Your task to perform on an android device: Go to ESPN.com Image 0: 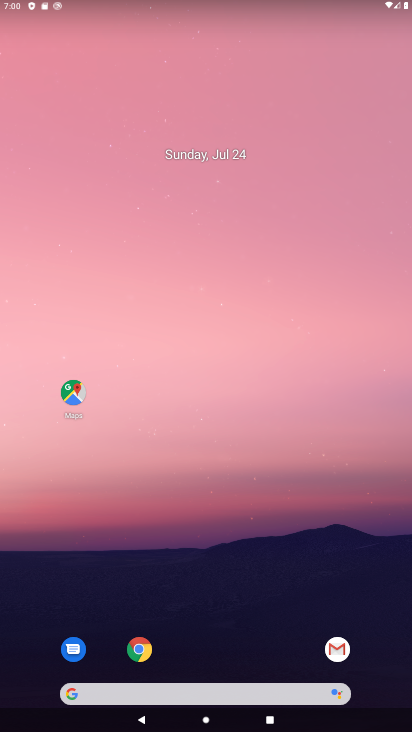
Step 0: click (129, 648)
Your task to perform on an android device: Go to ESPN.com Image 1: 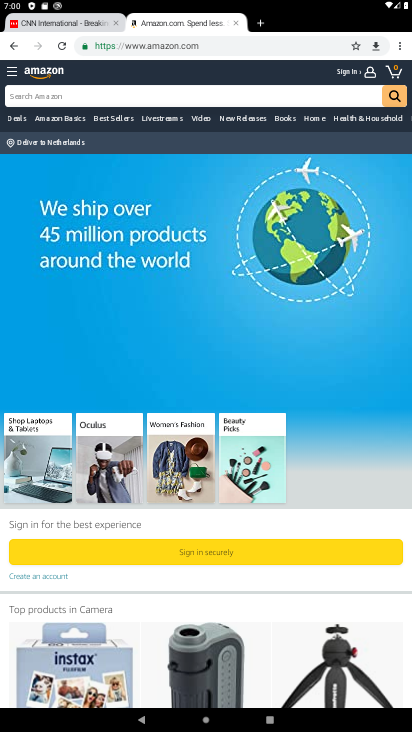
Step 1: click (257, 19)
Your task to perform on an android device: Go to ESPN.com Image 2: 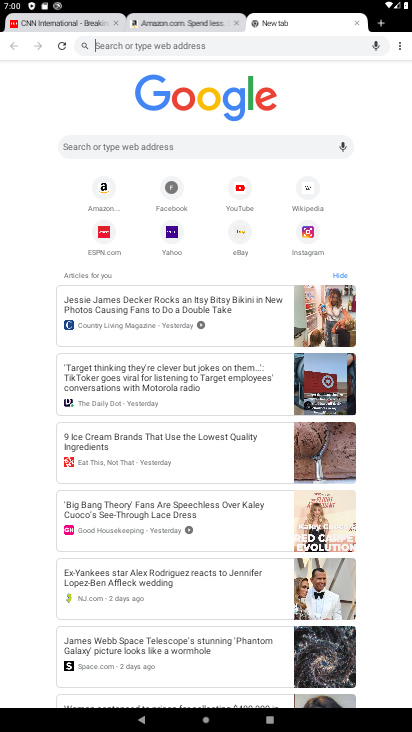
Step 2: click (105, 236)
Your task to perform on an android device: Go to ESPN.com Image 3: 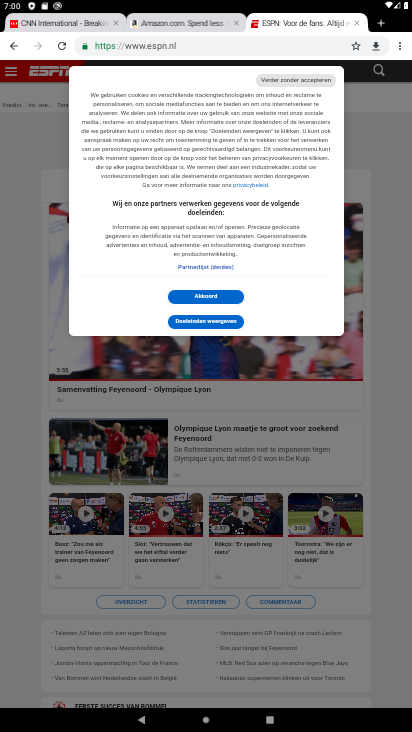
Step 3: click (192, 293)
Your task to perform on an android device: Go to ESPN.com Image 4: 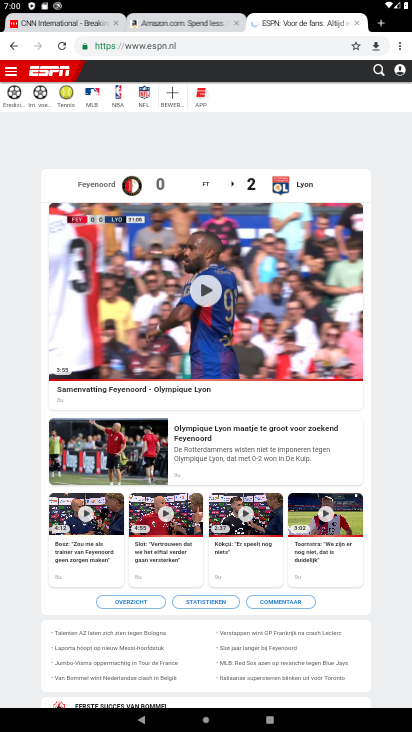
Step 4: task complete